Your task to perform on an android device: Open sound settings Image 0: 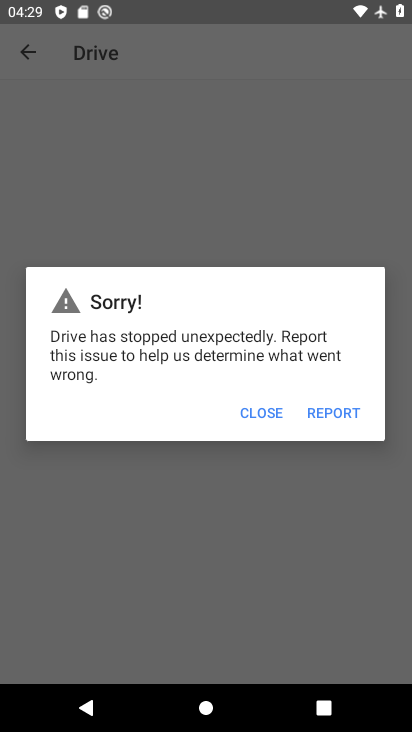
Step 0: press home button
Your task to perform on an android device: Open sound settings Image 1: 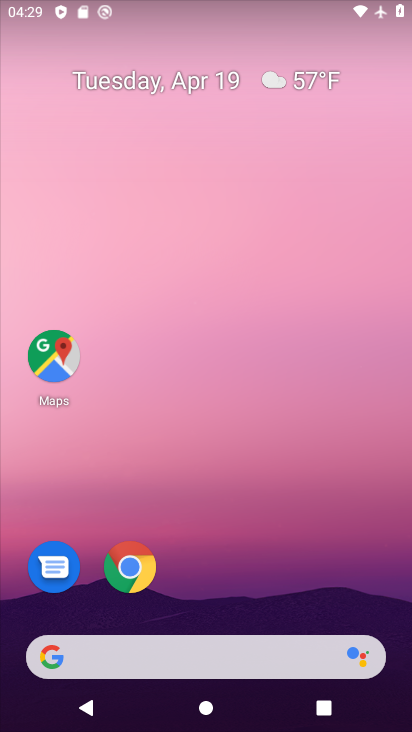
Step 1: drag from (362, 595) to (336, 144)
Your task to perform on an android device: Open sound settings Image 2: 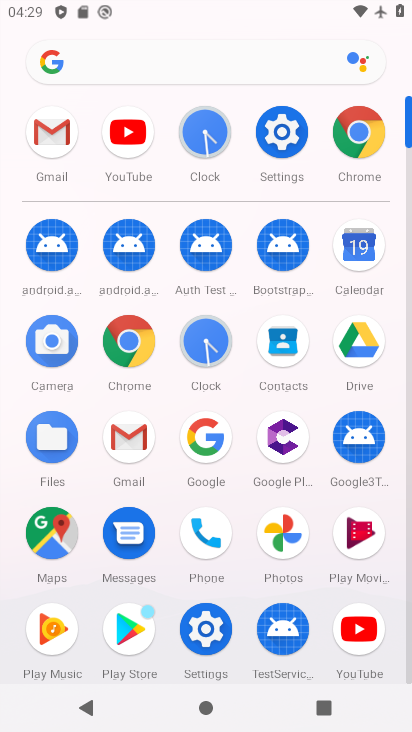
Step 2: click (214, 633)
Your task to perform on an android device: Open sound settings Image 3: 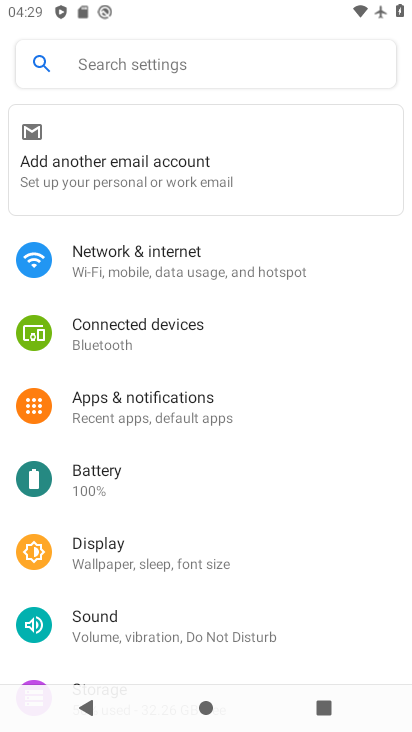
Step 3: drag from (340, 615) to (349, 467)
Your task to perform on an android device: Open sound settings Image 4: 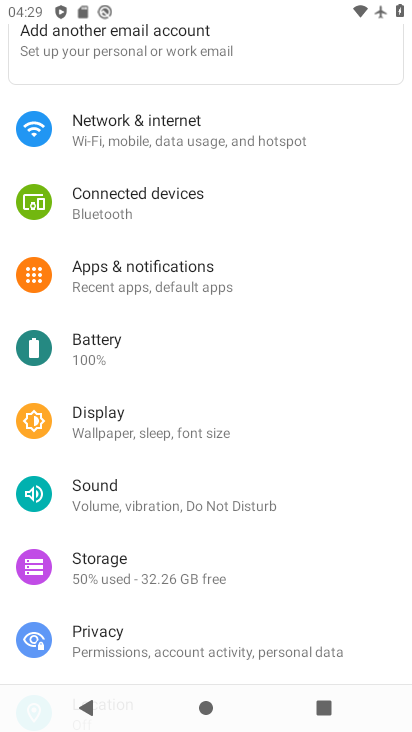
Step 4: drag from (342, 596) to (356, 430)
Your task to perform on an android device: Open sound settings Image 5: 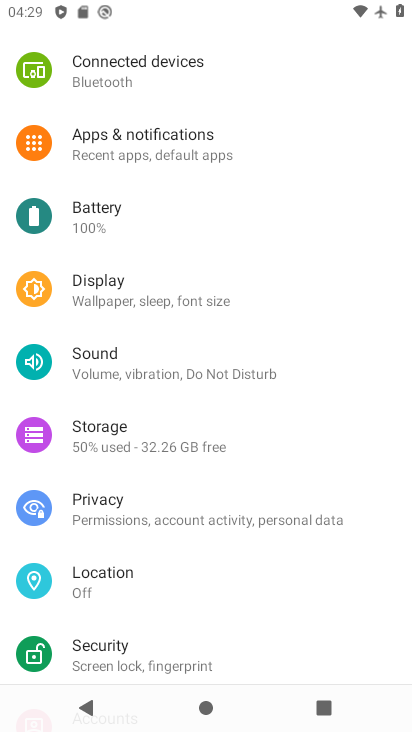
Step 5: drag from (319, 600) to (345, 443)
Your task to perform on an android device: Open sound settings Image 6: 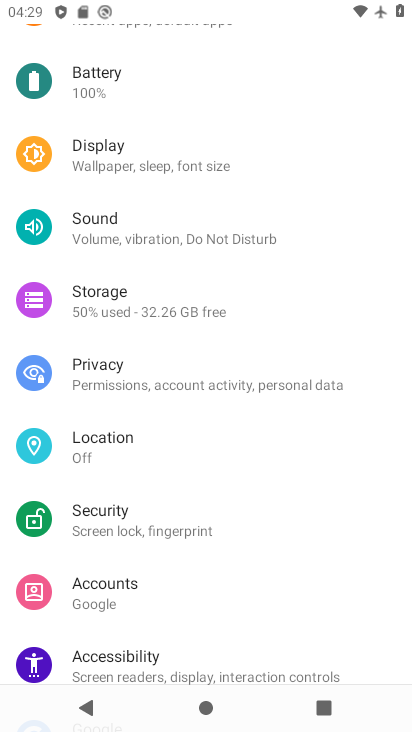
Step 6: drag from (353, 589) to (358, 421)
Your task to perform on an android device: Open sound settings Image 7: 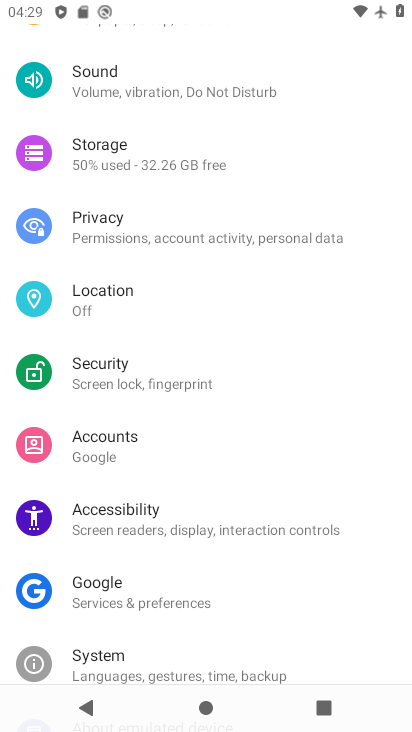
Step 7: drag from (354, 614) to (365, 452)
Your task to perform on an android device: Open sound settings Image 8: 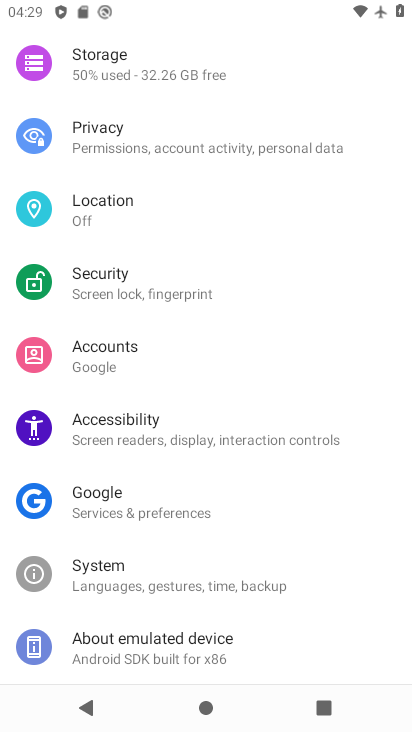
Step 8: drag from (359, 636) to (367, 458)
Your task to perform on an android device: Open sound settings Image 9: 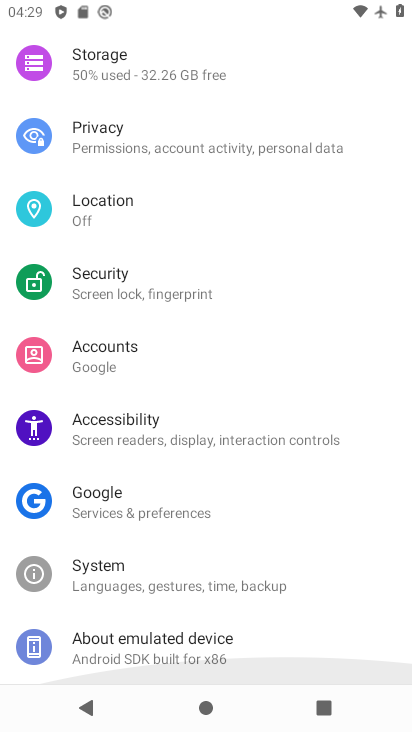
Step 9: drag from (370, 420) to (367, 540)
Your task to perform on an android device: Open sound settings Image 10: 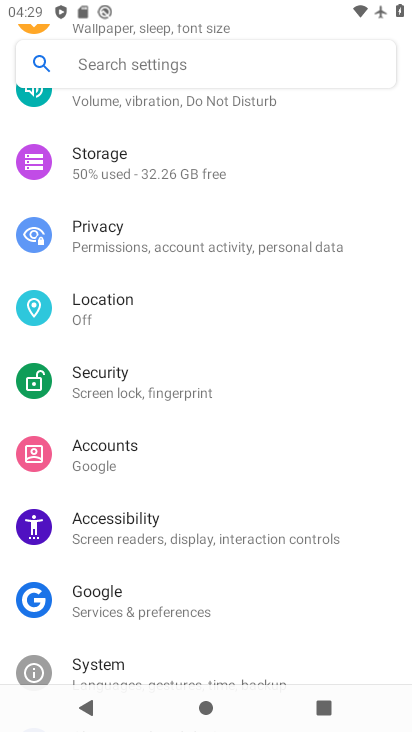
Step 10: drag from (369, 428) to (368, 589)
Your task to perform on an android device: Open sound settings Image 11: 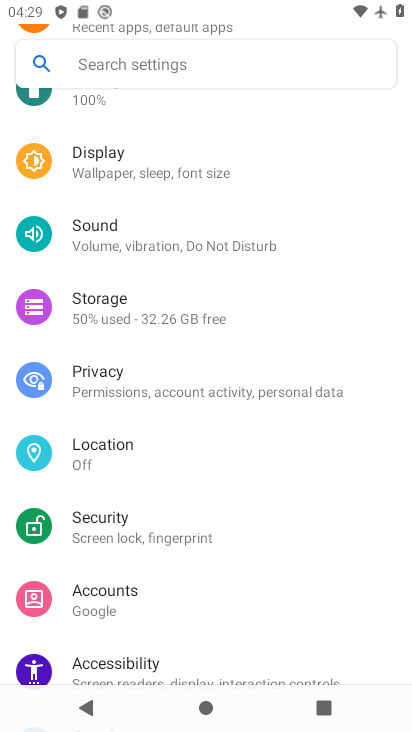
Step 11: drag from (370, 436) to (360, 562)
Your task to perform on an android device: Open sound settings Image 12: 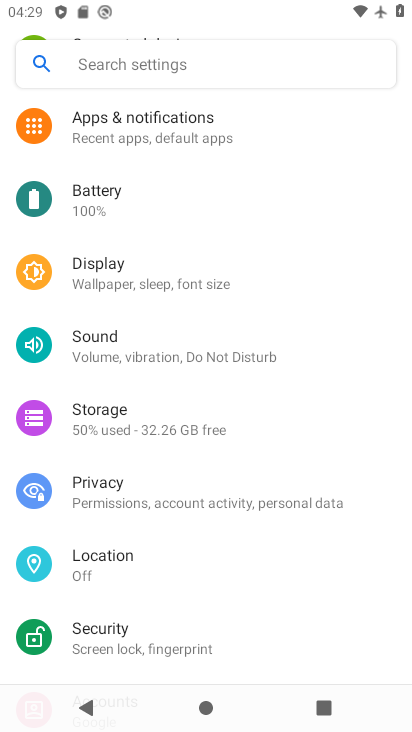
Step 12: drag from (362, 412) to (358, 535)
Your task to perform on an android device: Open sound settings Image 13: 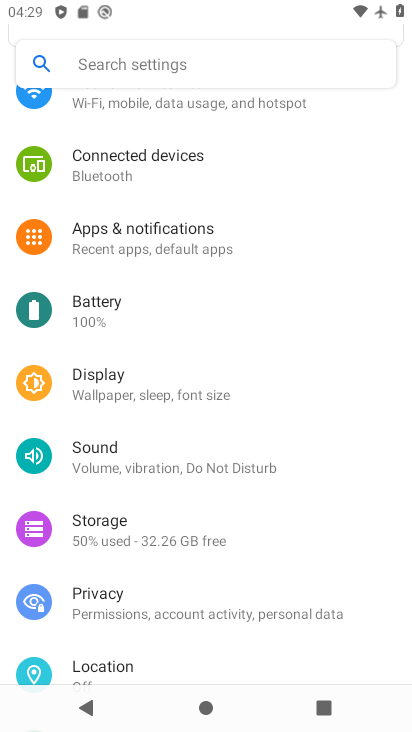
Step 13: click (215, 461)
Your task to perform on an android device: Open sound settings Image 14: 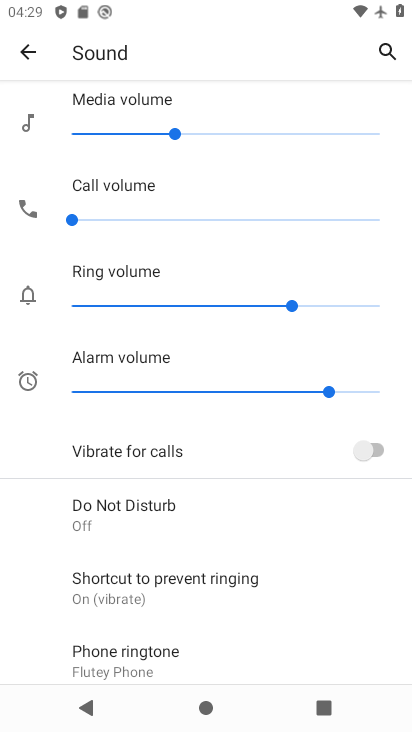
Step 14: task complete